Your task to perform on an android device: Go to internet settings Image 0: 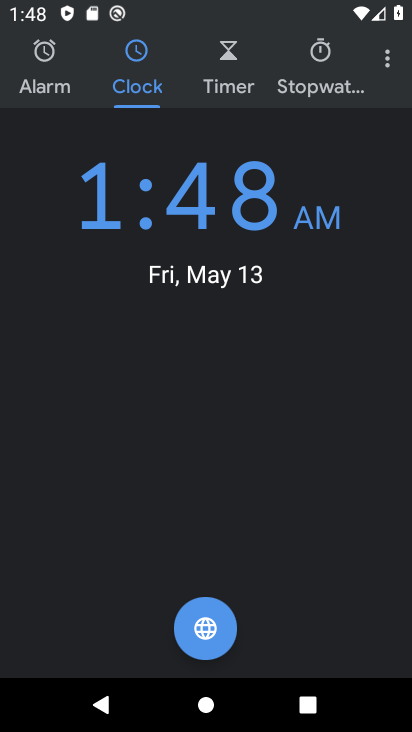
Step 0: press home button
Your task to perform on an android device: Go to internet settings Image 1: 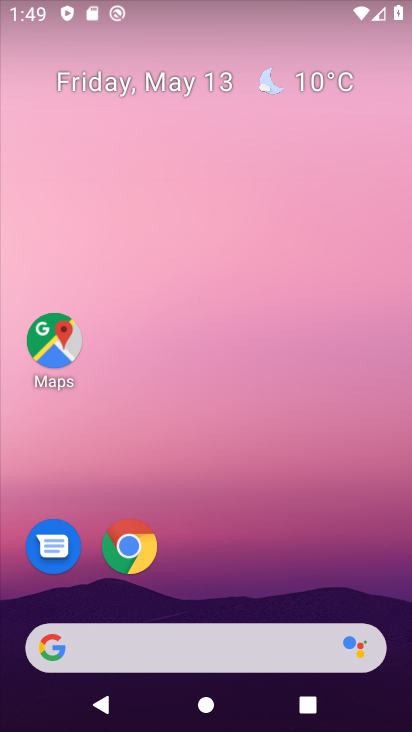
Step 1: drag from (211, 587) to (353, 139)
Your task to perform on an android device: Go to internet settings Image 2: 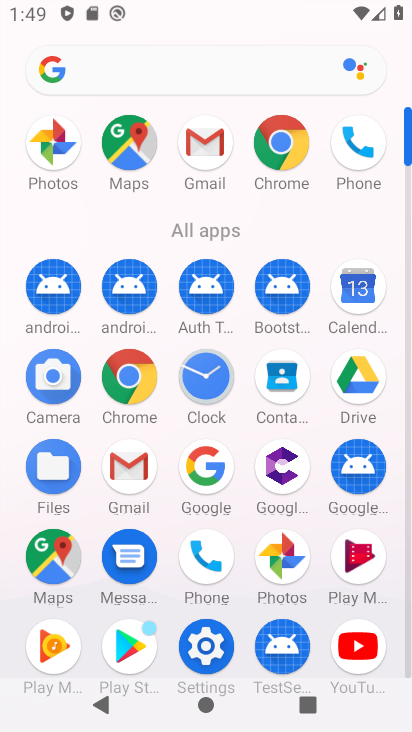
Step 2: drag from (201, 607) to (258, 486)
Your task to perform on an android device: Go to internet settings Image 3: 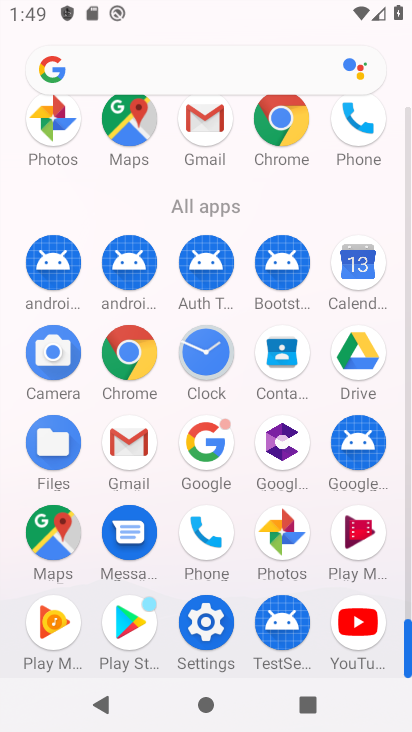
Step 3: click (202, 634)
Your task to perform on an android device: Go to internet settings Image 4: 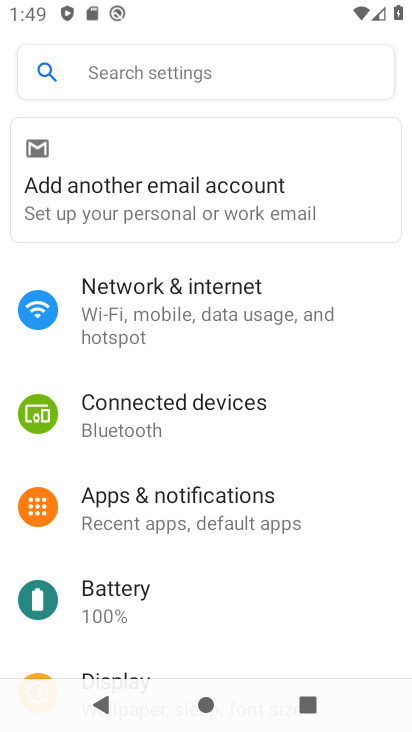
Step 4: click (248, 307)
Your task to perform on an android device: Go to internet settings Image 5: 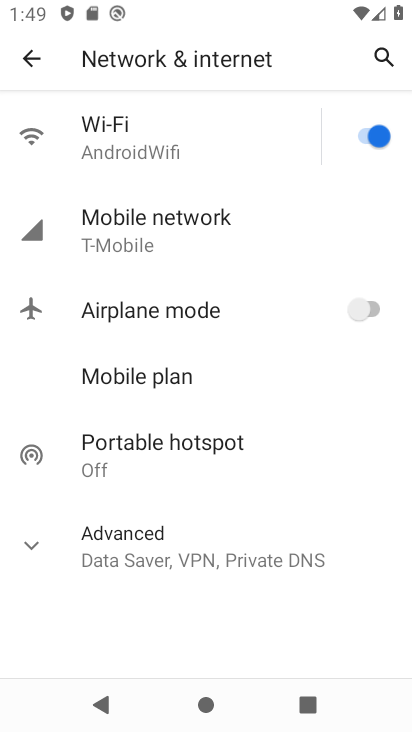
Step 5: click (219, 241)
Your task to perform on an android device: Go to internet settings Image 6: 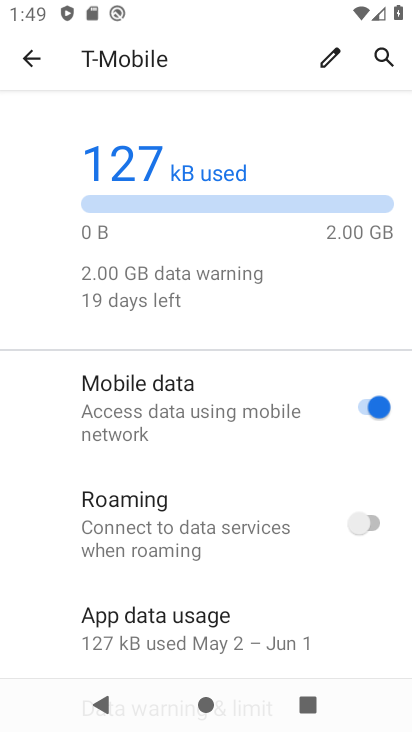
Step 6: task complete